Your task to perform on an android device: delete the emails in spam in the gmail app Image 0: 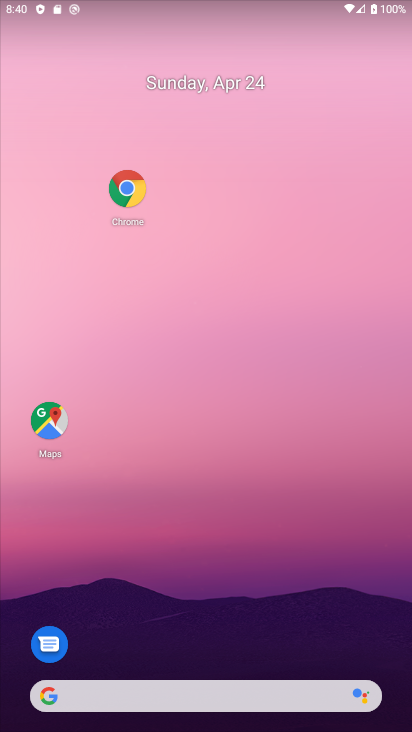
Step 0: drag from (217, 594) to (353, 161)
Your task to perform on an android device: delete the emails in spam in the gmail app Image 1: 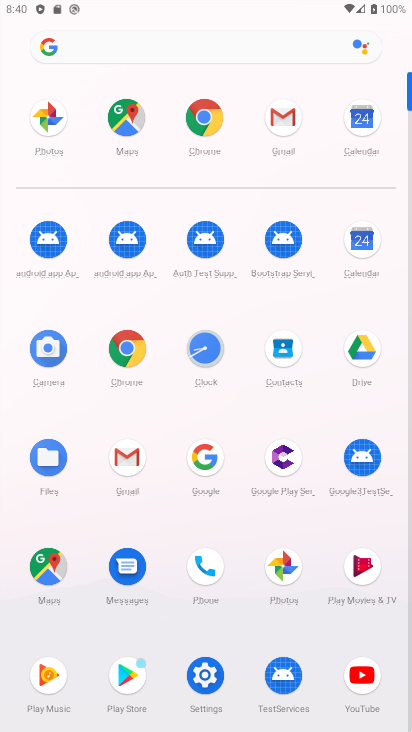
Step 1: click (141, 462)
Your task to perform on an android device: delete the emails in spam in the gmail app Image 2: 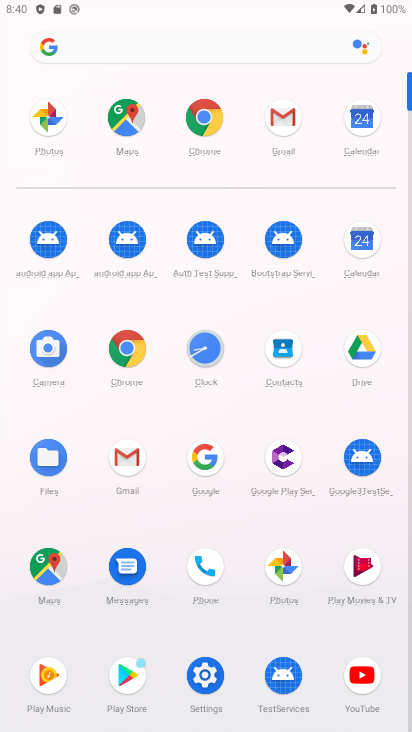
Step 2: click (132, 452)
Your task to perform on an android device: delete the emails in spam in the gmail app Image 3: 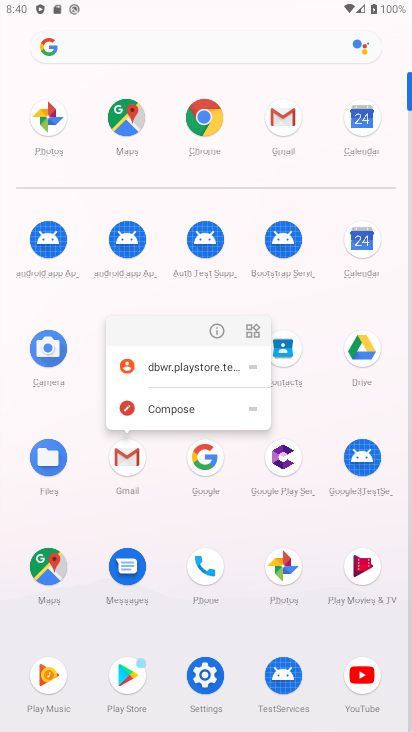
Step 3: click (213, 331)
Your task to perform on an android device: delete the emails in spam in the gmail app Image 4: 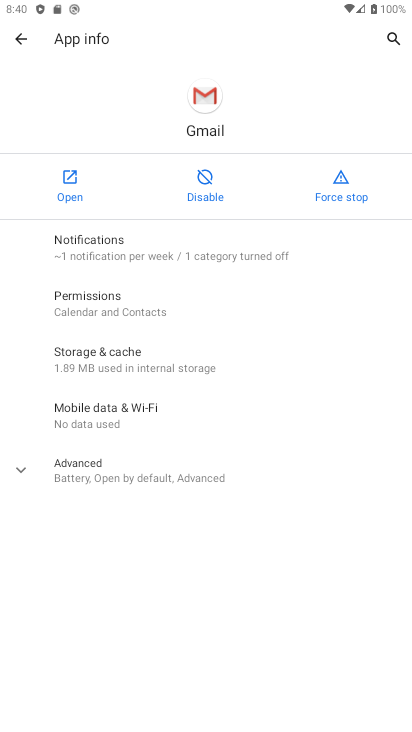
Step 4: click (80, 193)
Your task to perform on an android device: delete the emails in spam in the gmail app Image 5: 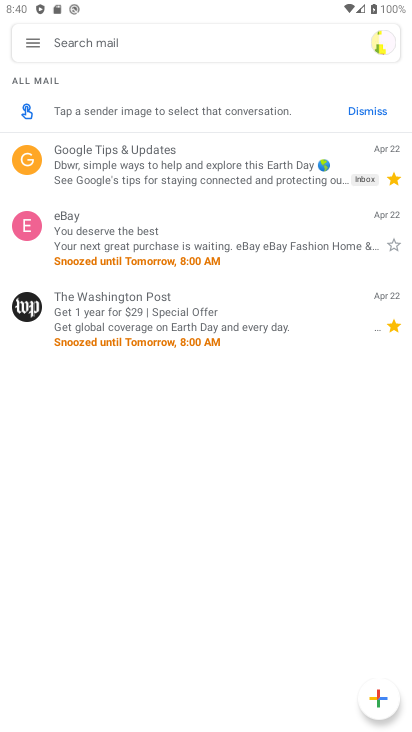
Step 5: click (24, 39)
Your task to perform on an android device: delete the emails in spam in the gmail app Image 6: 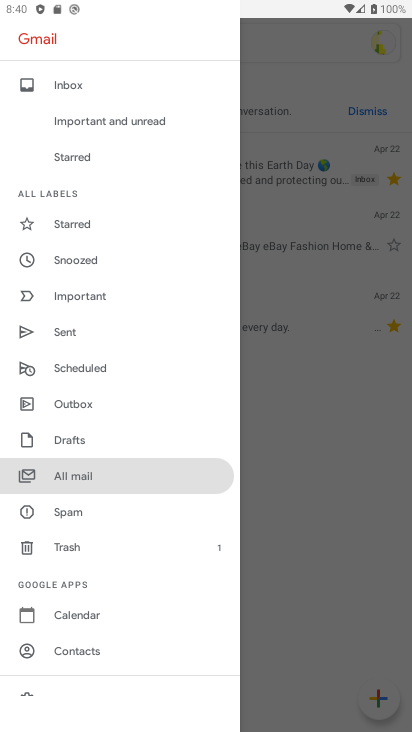
Step 6: click (66, 517)
Your task to perform on an android device: delete the emails in spam in the gmail app Image 7: 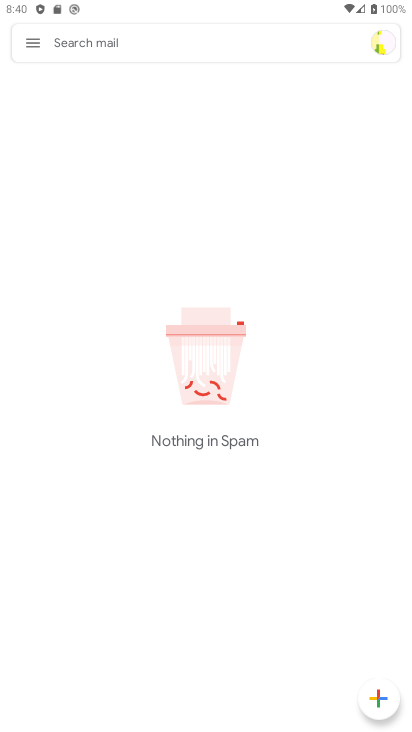
Step 7: task complete